Your task to perform on an android device: Open display settings Image 0: 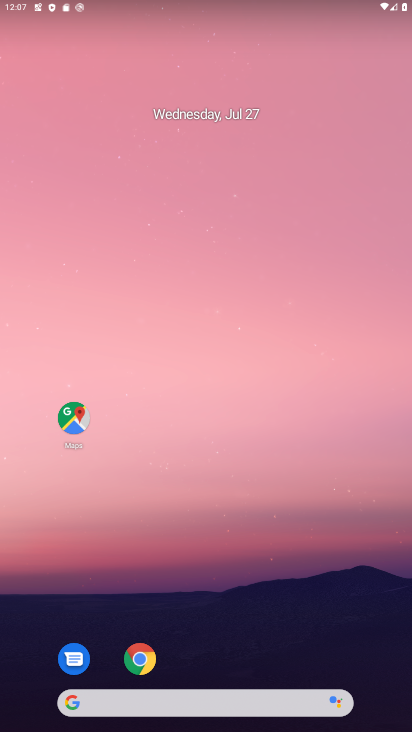
Step 0: press home button
Your task to perform on an android device: Open display settings Image 1: 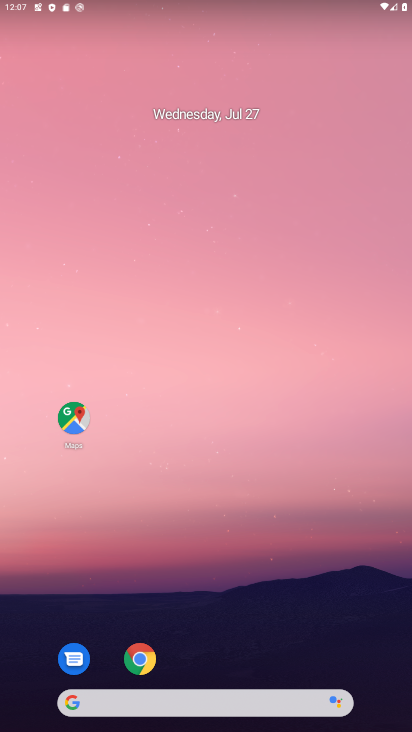
Step 1: drag from (222, 662) to (215, 110)
Your task to perform on an android device: Open display settings Image 2: 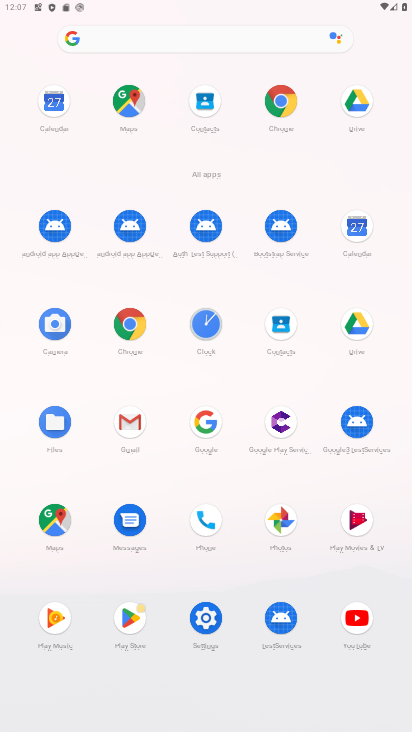
Step 2: click (204, 611)
Your task to perform on an android device: Open display settings Image 3: 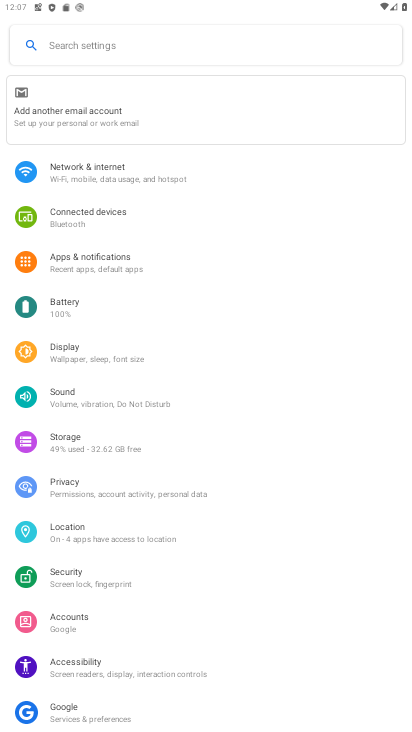
Step 3: click (100, 342)
Your task to perform on an android device: Open display settings Image 4: 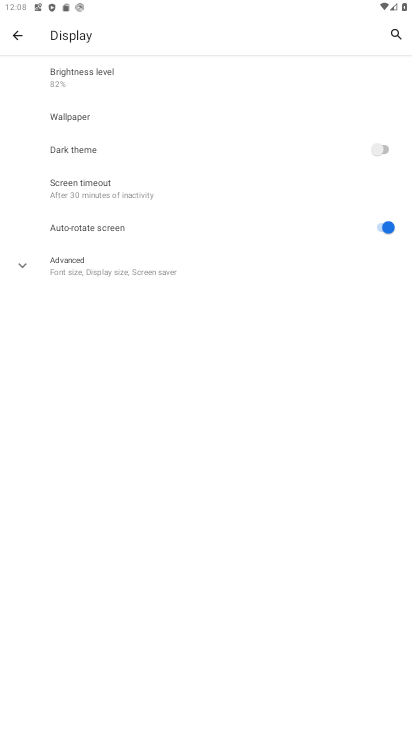
Step 4: click (19, 256)
Your task to perform on an android device: Open display settings Image 5: 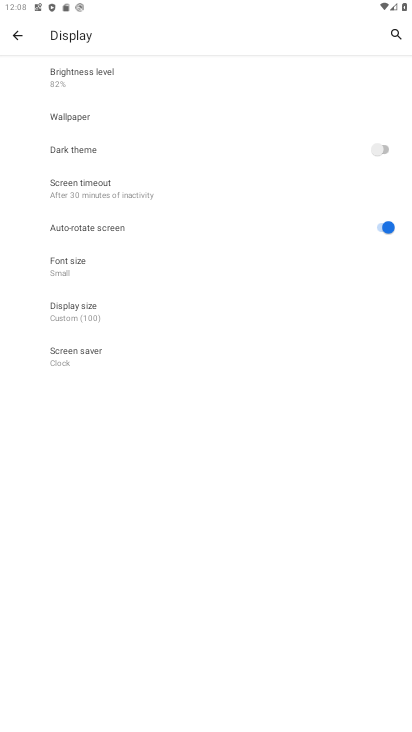
Step 5: task complete